Your task to perform on an android device: turn notification dots off Image 0: 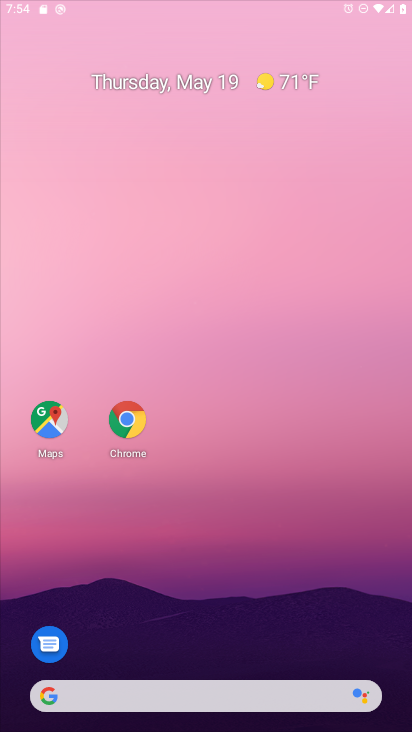
Step 0: click (130, 424)
Your task to perform on an android device: turn notification dots off Image 1: 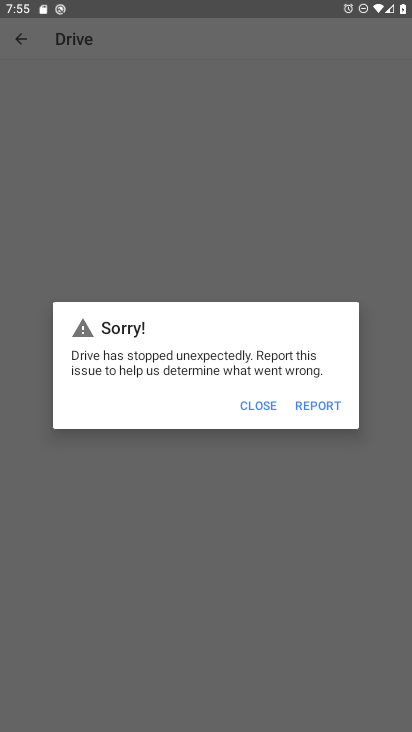
Step 1: click (255, 397)
Your task to perform on an android device: turn notification dots off Image 2: 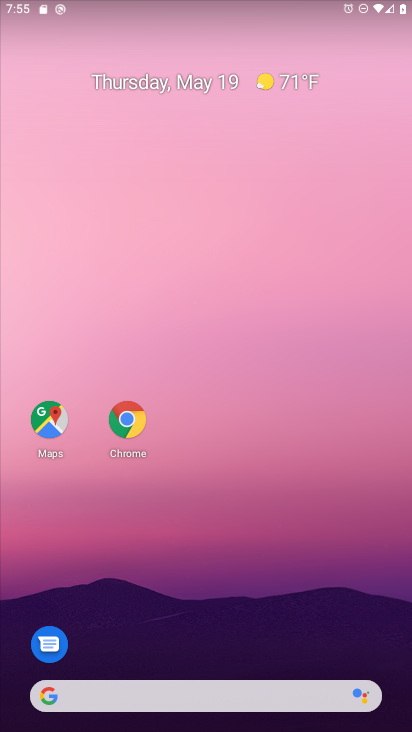
Step 2: drag from (192, 666) to (243, 303)
Your task to perform on an android device: turn notification dots off Image 3: 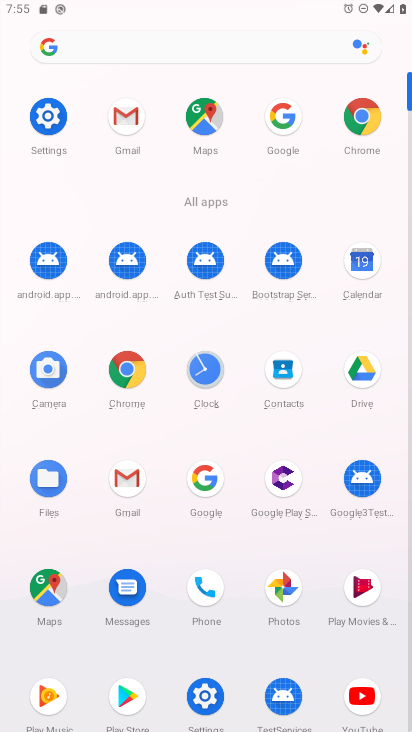
Step 3: click (49, 119)
Your task to perform on an android device: turn notification dots off Image 4: 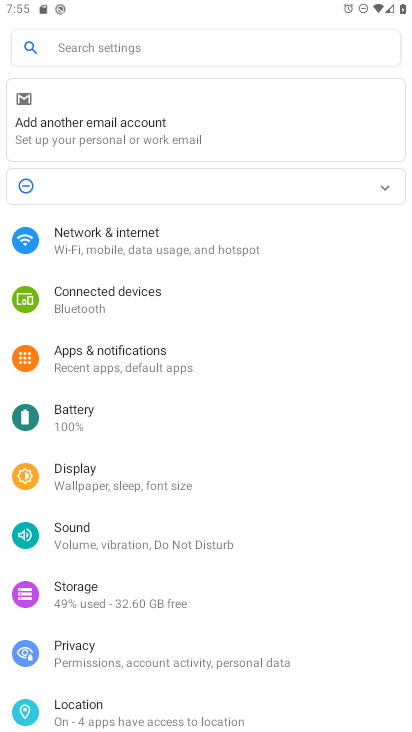
Step 4: click (105, 352)
Your task to perform on an android device: turn notification dots off Image 5: 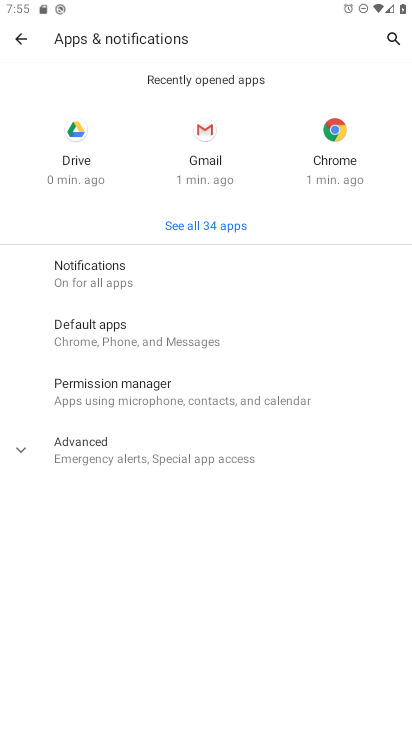
Step 5: click (90, 258)
Your task to perform on an android device: turn notification dots off Image 6: 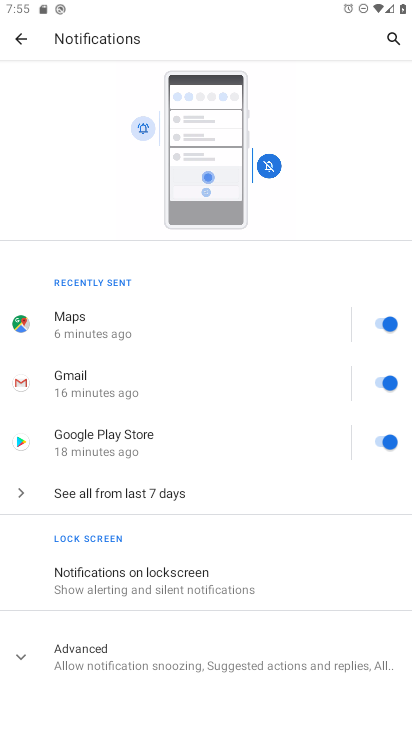
Step 6: click (101, 660)
Your task to perform on an android device: turn notification dots off Image 7: 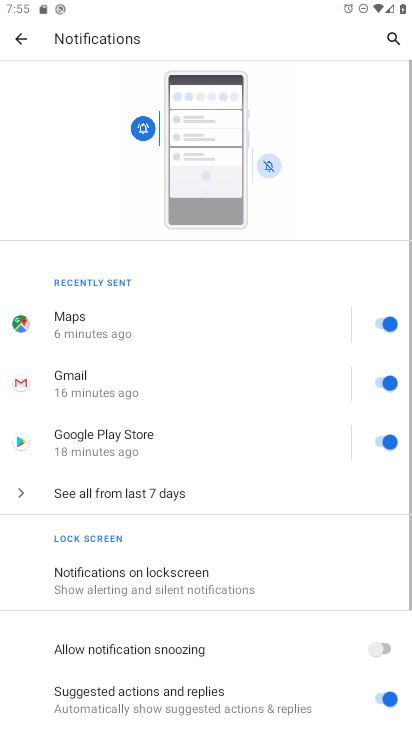
Step 7: drag from (231, 681) to (298, 282)
Your task to perform on an android device: turn notification dots off Image 8: 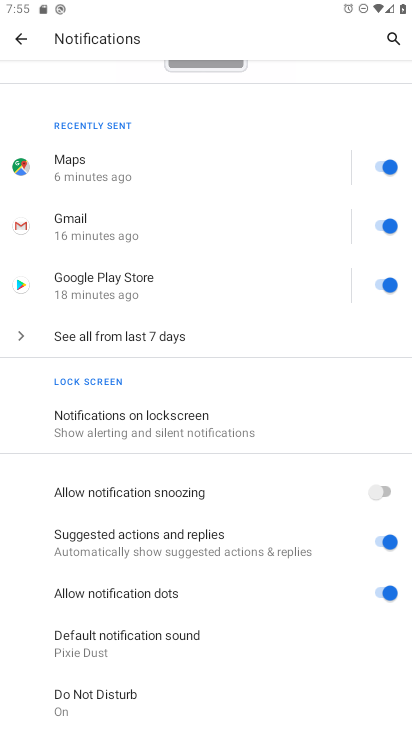
Step 8: click (388, 587)
Your task to perform on an android device: turn notification dots off Image 9: 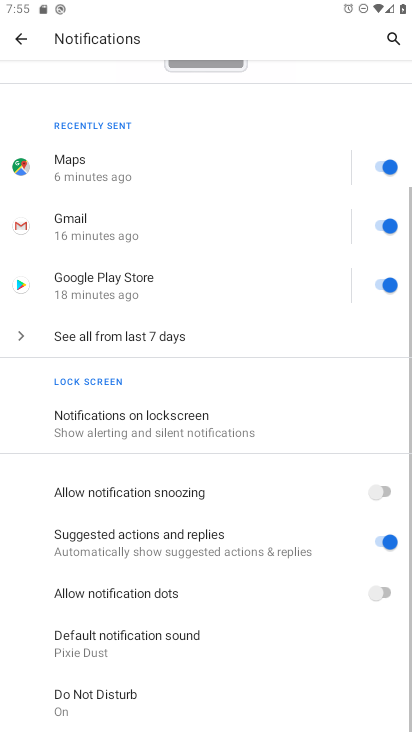
Step 9: task complete